Your task to perform on an android device: move a message to another label in the gmail app Image 0: 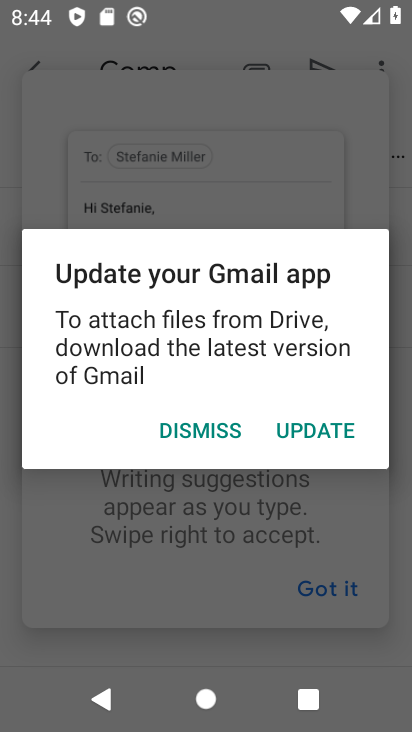
Step 0: press home button
Your task to perform on an android device: move a message to another label in the gmail app Image 1: 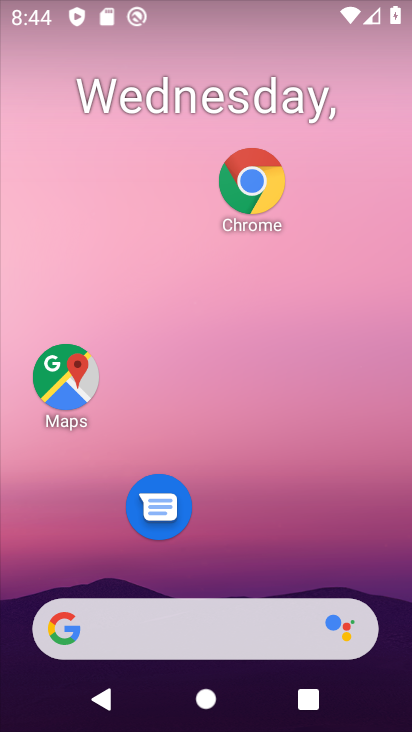
Step 1: drag from (308, 567) to (365, 143)
Your task to perform on an android device: move a message to another label in the gmail app Image 2: 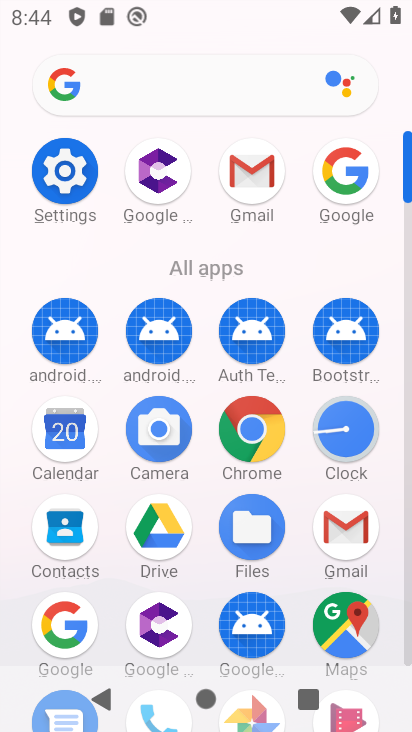
Step 2: click (347, 542)
Your task to perform on an android device: move a message to another label in the gmail app Image 3: 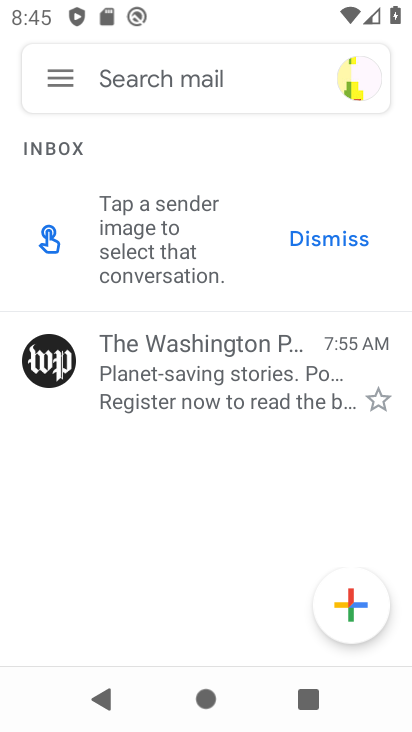
Step 3: click (198, 246)
Your task to perform on an android device: move a message to another label in the gmail app Image 4: 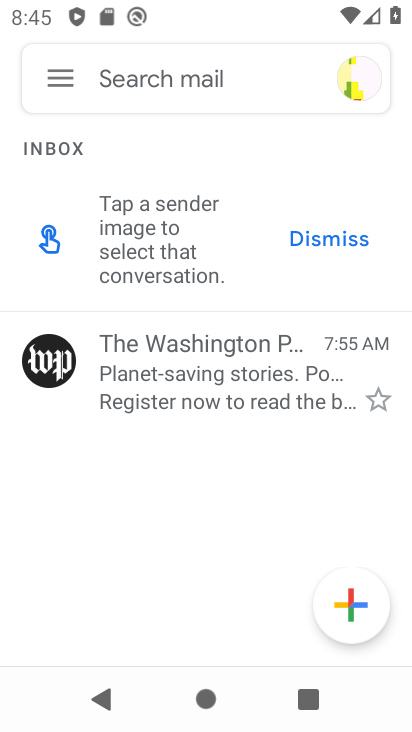
Step 4: click (240, 369)
Your task to perform on an android device: move a message to another label in the gmail app Image 5: 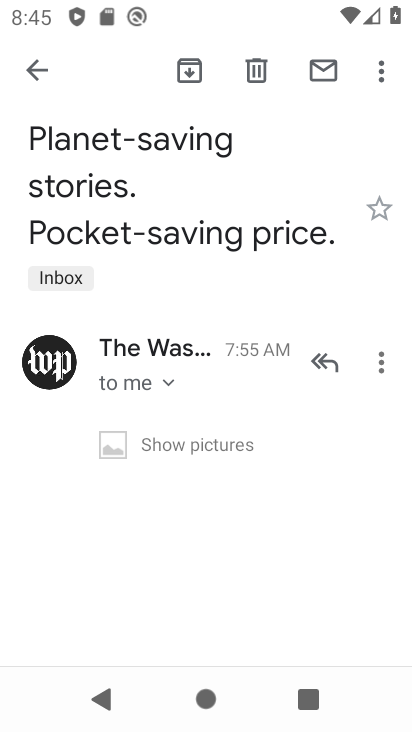
Step 5: click (373, 80)
Your task to perform on an android device: move a message to another label in the gmail app Image 6: 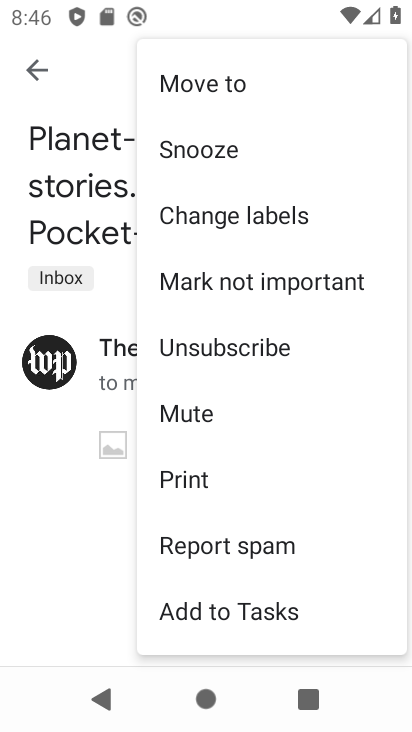
Step 6: click (277, 222)
Your task to perform on an android device: move a message to another label in the gmail app Image 7: 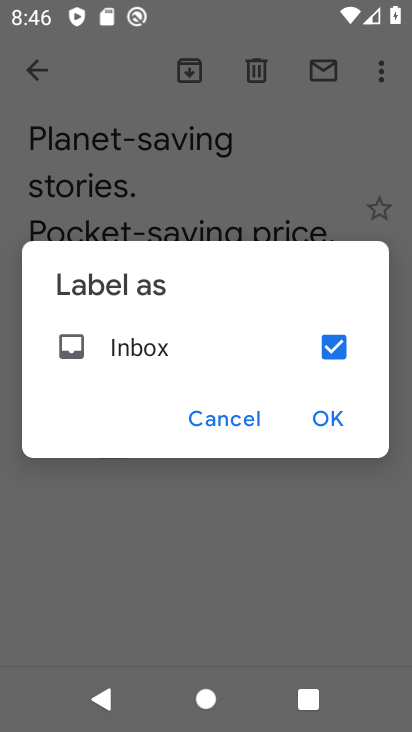
Step 7: click (320, 421)
Your task to perform on an android device: move a message to another label in the gmail app Image 8: 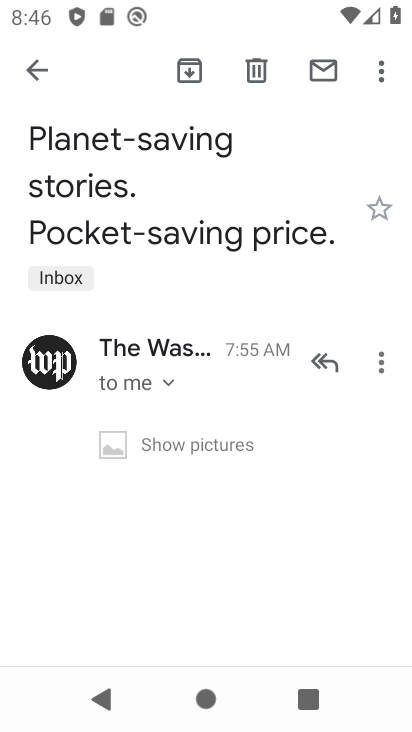
Step 8: task complete